Your task to perform on an android device: turn off sleep mode Image 0: 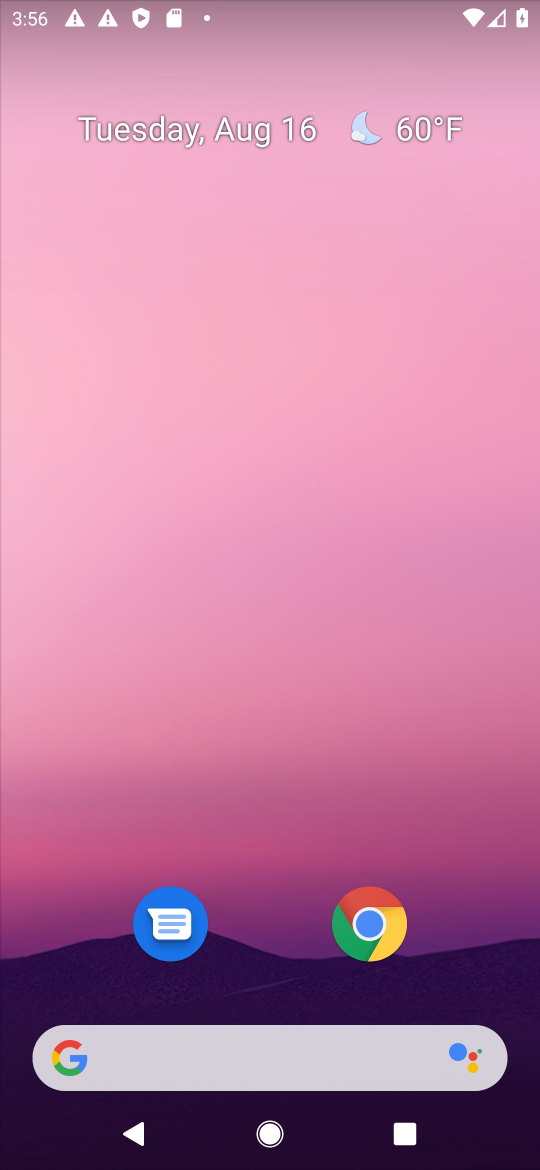
Step 0: press home button
Your task to perform on an android device: turn off sleep mode Image 1: 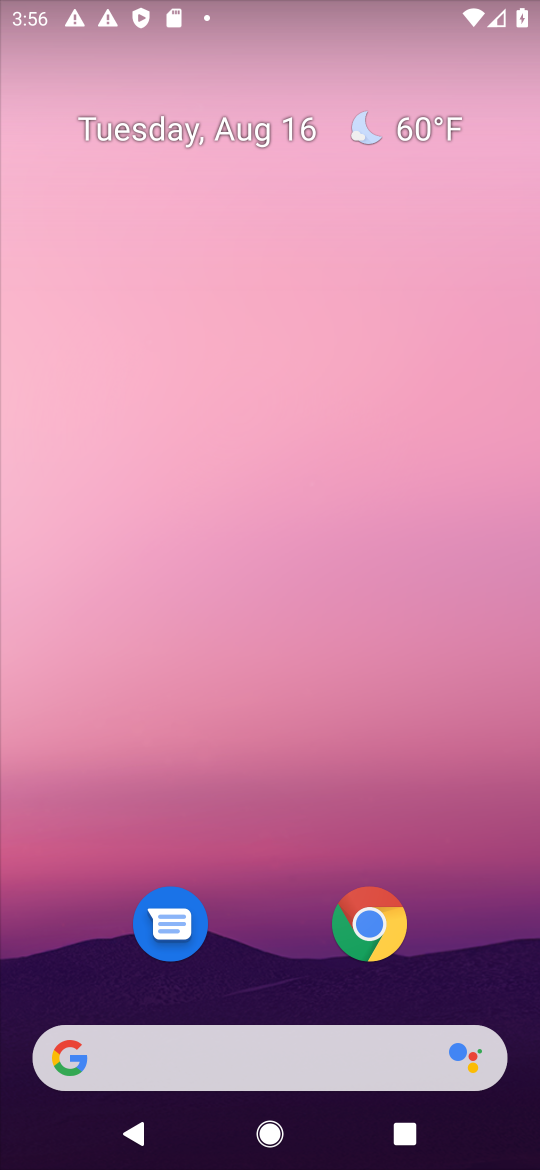
Step 1: drag from (247, 971) to (169, 114)
Your task to perform on an android device: turn off sleep mode Image 2: 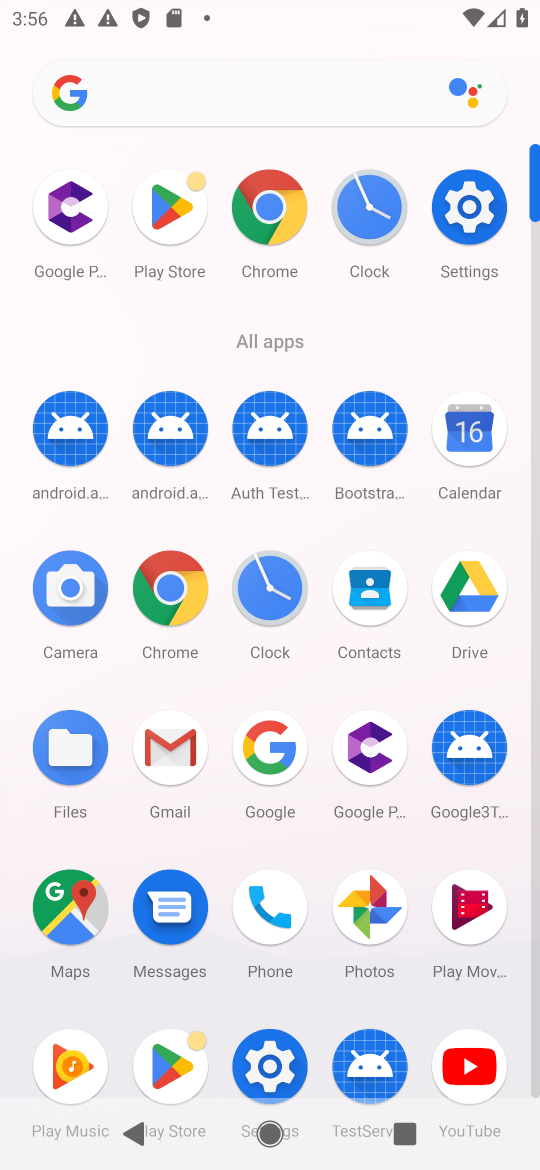
Step 2: click (465, 211)
Your task to perform on an android device: turn off sleep mode Image 3: 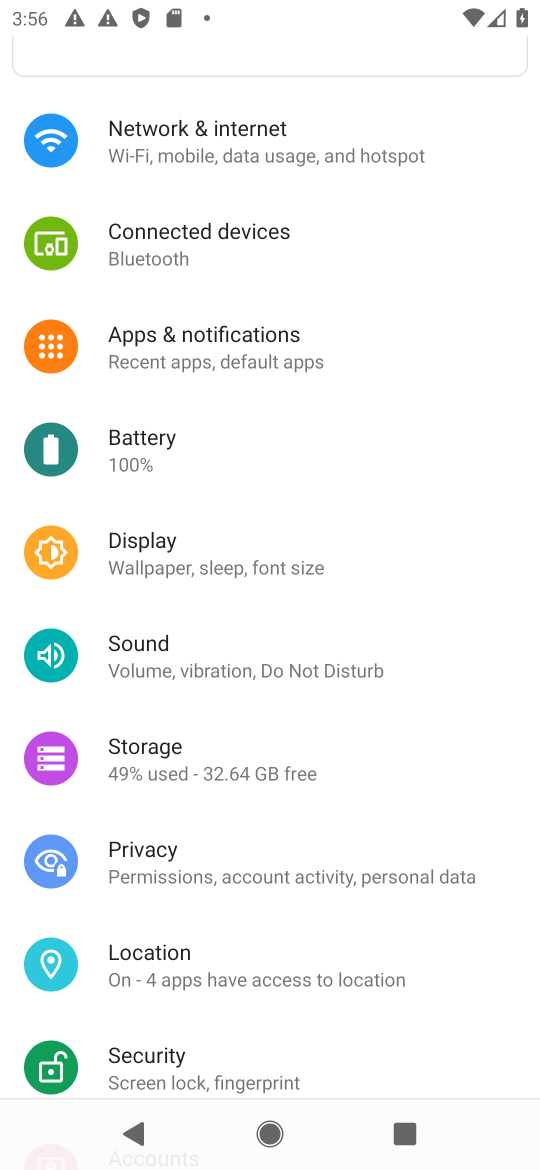
Step 3: task complete